Your task to perform on an android device: Open the calendar app, open the side menu, and click the "Day" option Image 0: 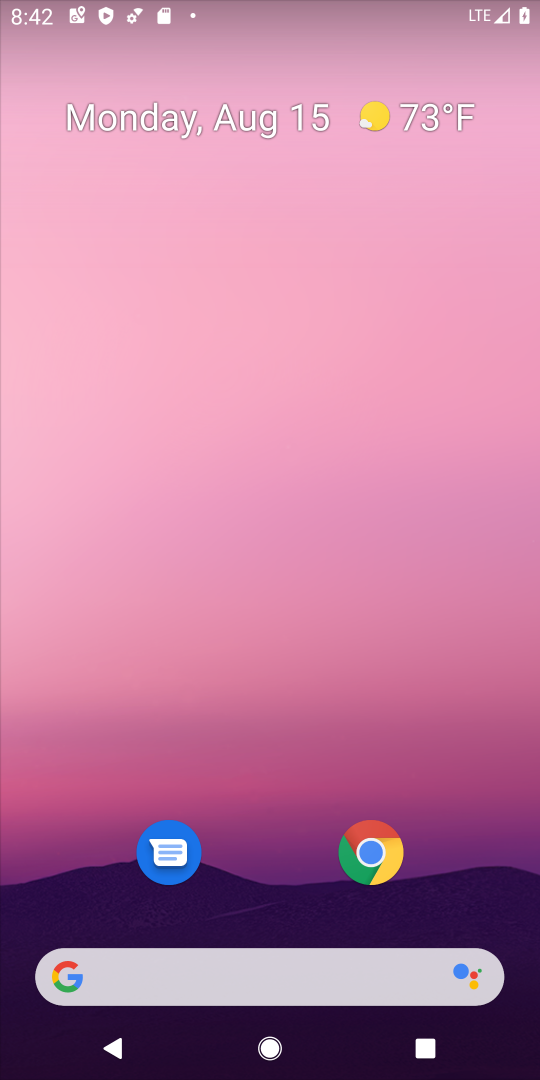
Step 0: drag from (203, 957) to (263, 112)
Your task to perform on an android device: Open the calendar app, open the side menu, and click the "Day" option Image 1: 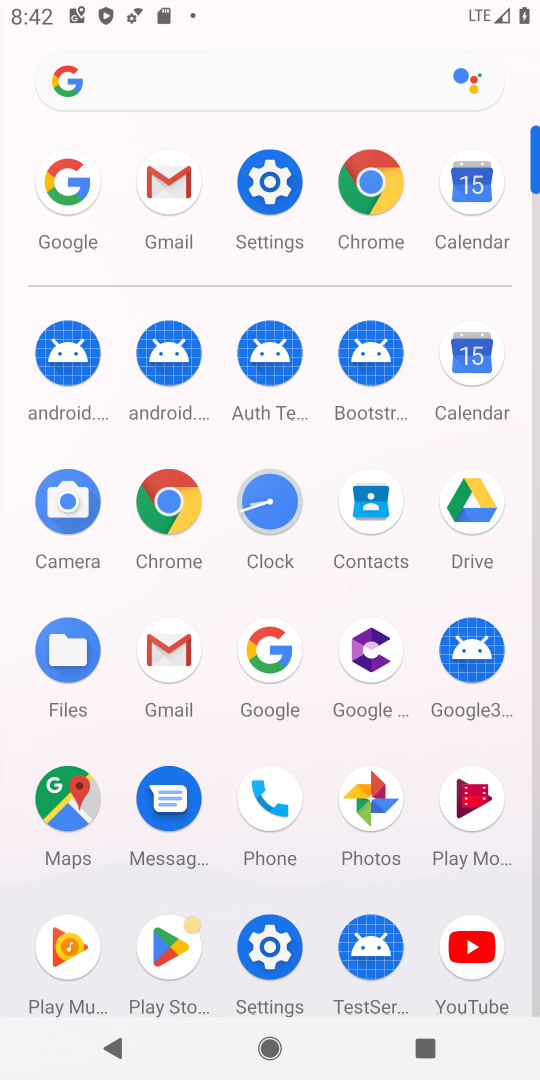
Step 1: click (470, 191)
Your task to perform on an android device: Open the calendar app, open the side menu, and click the "Day" option Image 2: 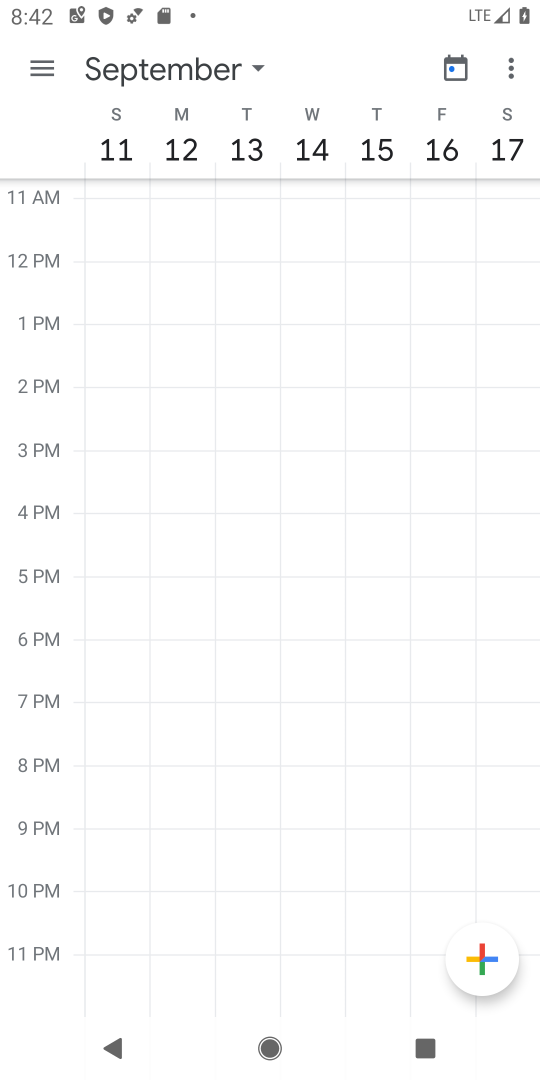
Step 2: click (50, 70)
Your task to perform on an android device: Open the calendar app, open the side menu, and click the "Day" option Image 3: 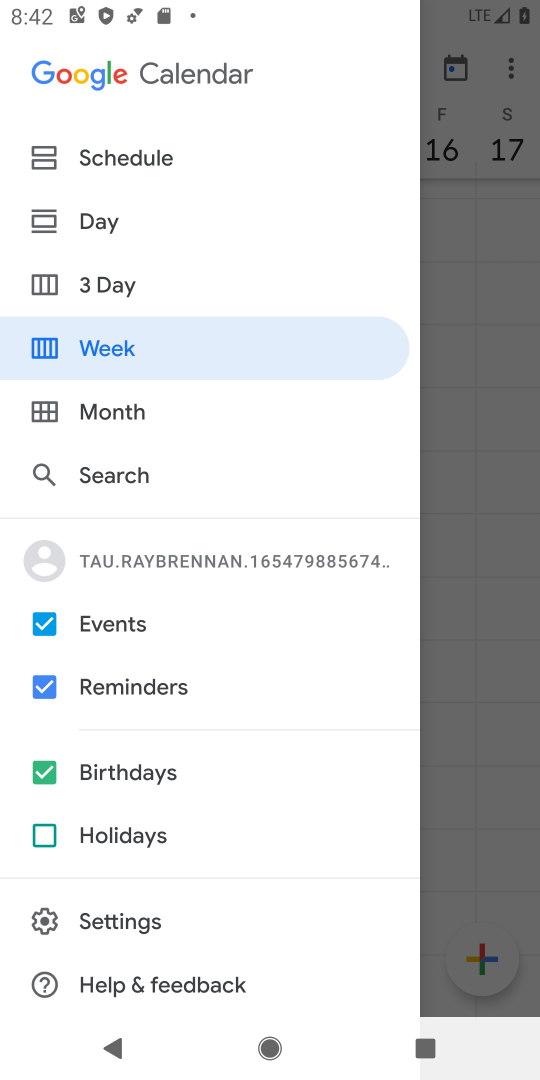
Step 3: click (83, 210)
Your task to perform on an android device: Open the calendar app, open the side menu, and click the "Day" option Image 4: 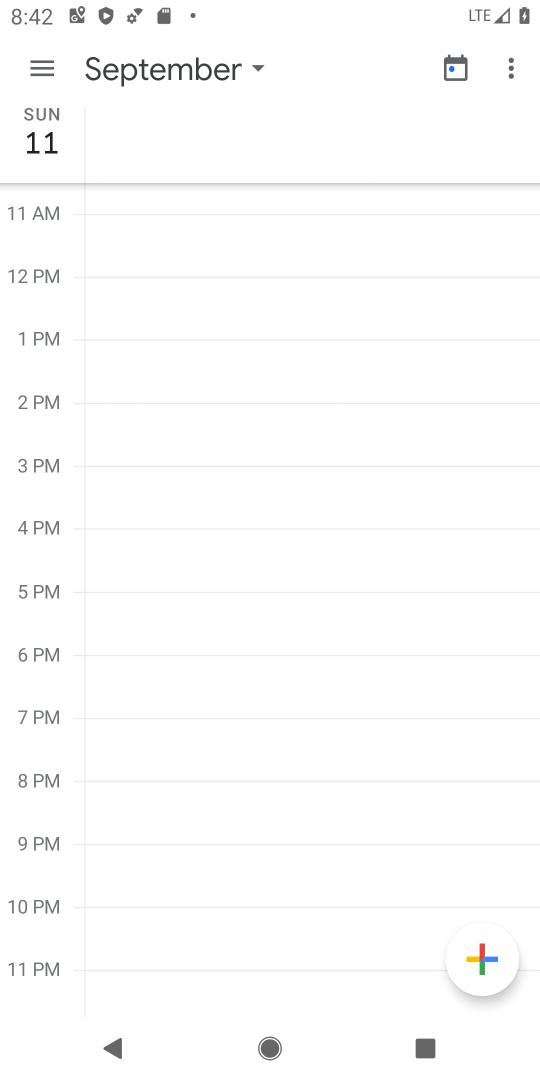
Step 4: task complete